Your task to perform on an android device: Open the stopwatch Image 0: 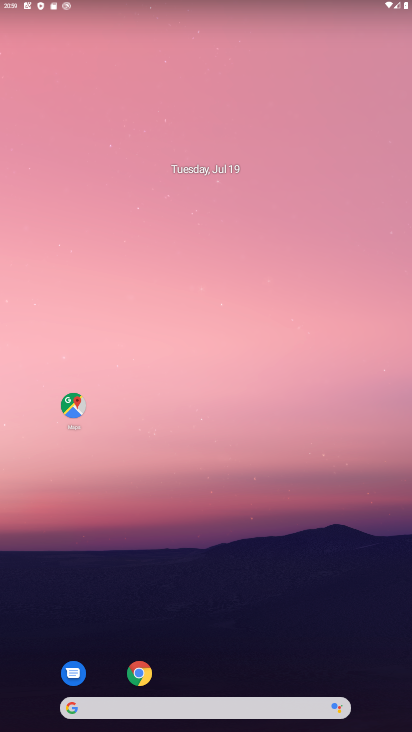
Step 0: drag from (208, 681) to (270, 10)
Your task to perform on an android device: Open the stopwatch Image 1: 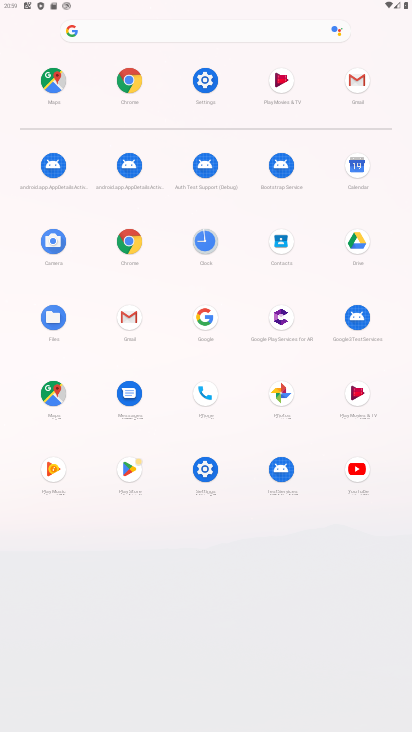
Step 1: click (205, 250)
Your task to perform on an android device: Open the stopwatch Image 2: 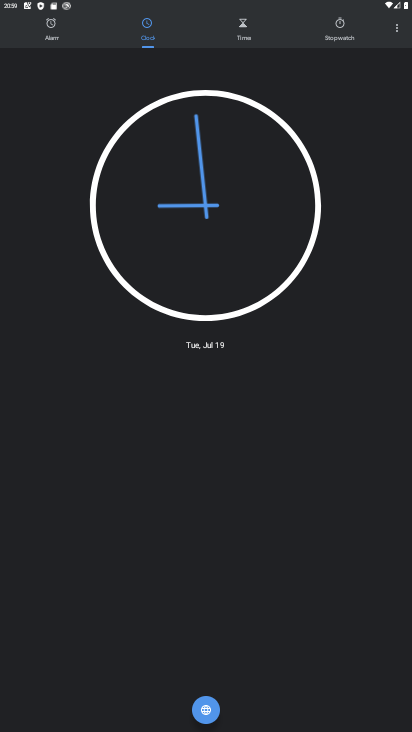
Step 2: click (329, 35)
Your task to perform on an android device: Open the stopwatch Image 3: 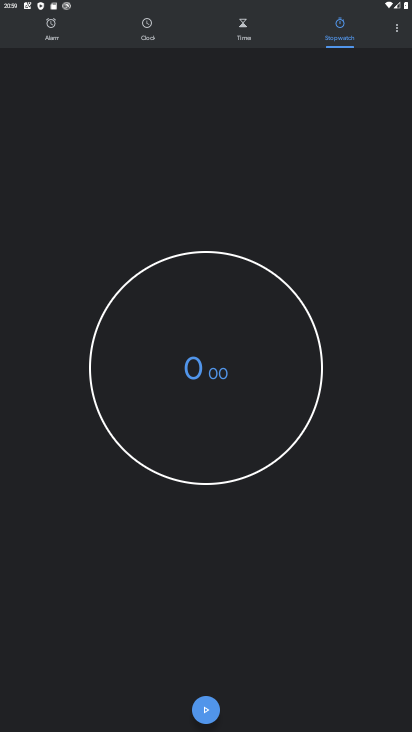
Step 3: click (338, 29)
Your task to perform on an android device: Open the stopwatch Image 4: 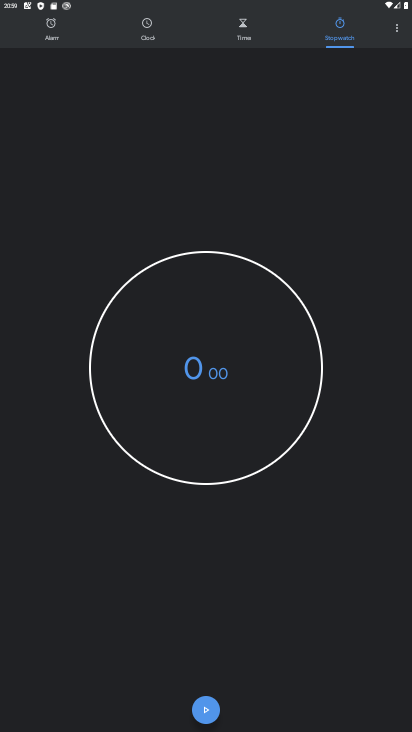
Step 4: click (212, 716)
Your task to perform on an android device: Open the stopwatch Image 5: 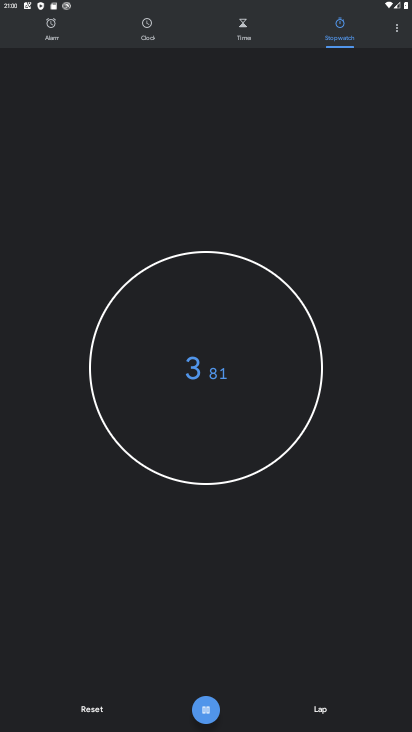
Step 5: task complete